Your task to perform on an android device: Go to CNN.com Image 0: 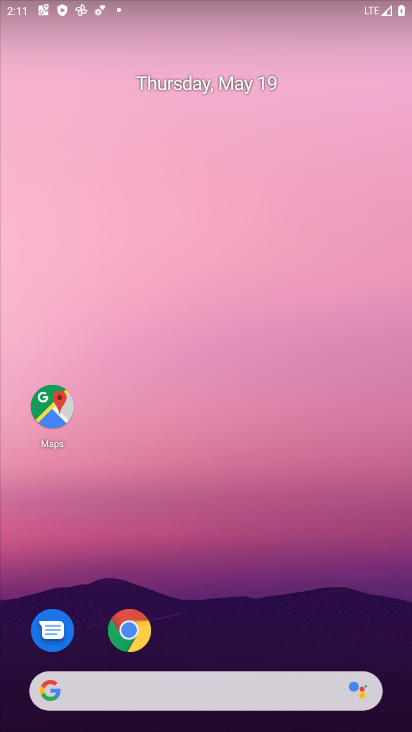
Step 0: click (129, 625)
Your task to perform on an android device: Go to CNN.com Image 1: 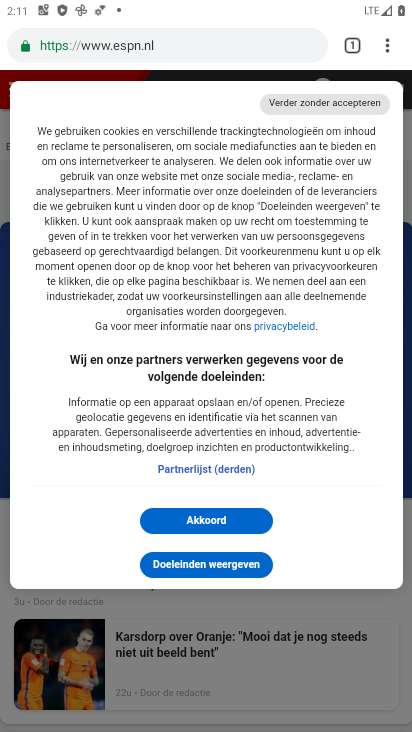
Step 1: click (112, 45)
Your task to perform on an android device: Go to CNN.com Image 2: 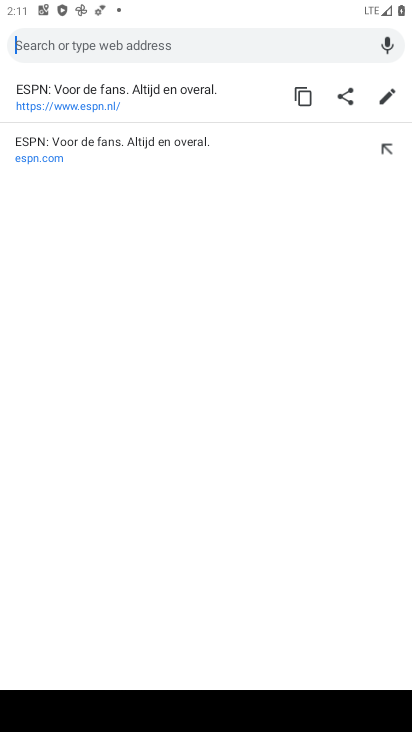
Step 2: type "cnn.com"
Your task to perform on an android device: Go to CNN.com Image 3: 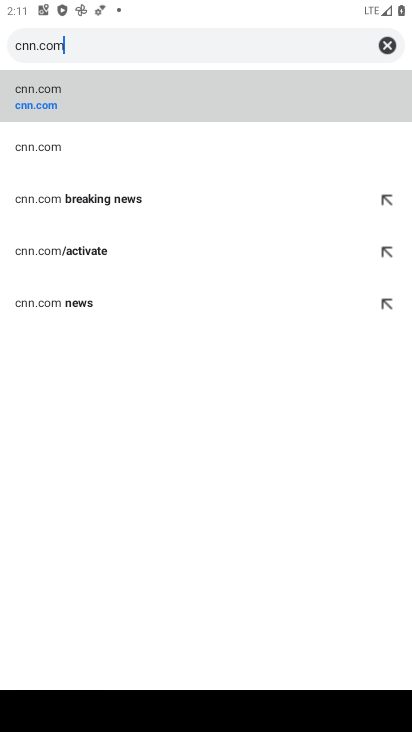
Step 3: click (42, 103)
Your task to perform on an android device: Go to CNN.com Image 4: 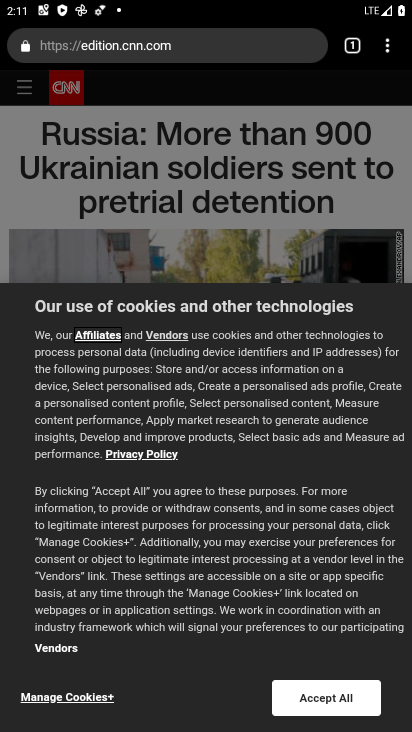
Step 4: task complete